Your task to perform on an android device: Go to wifi settings Image 0: 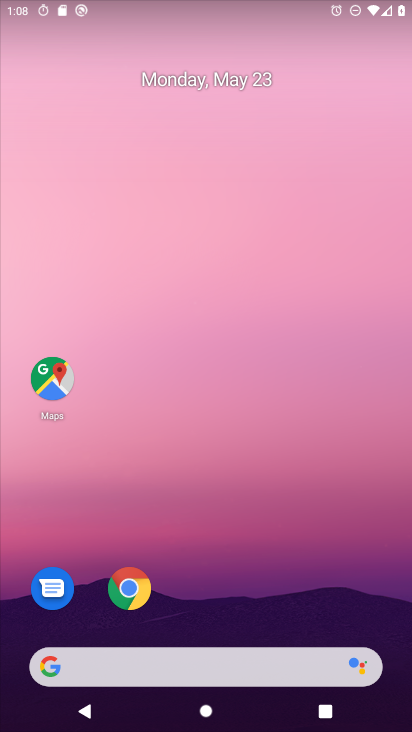
Step 0: drag from (263, 681) to (167, 168)
Your task to perform on an android device: Go to wifi settings Image 1: 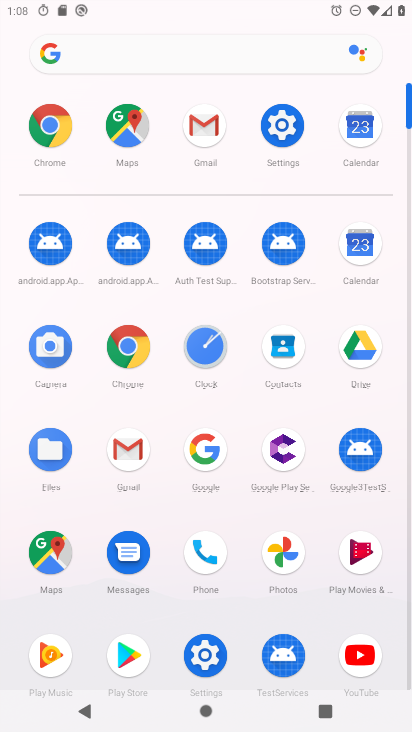
Step 1: click (257, 128)
Your task to perform on an android device: Go to wifi settings Image 2: 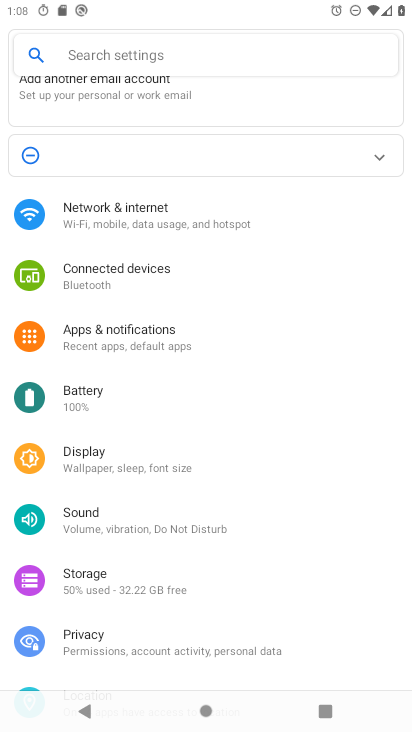
Step 2: click (172, 227)
Your task to perform on an android device: Go to wifi settings Image 3: 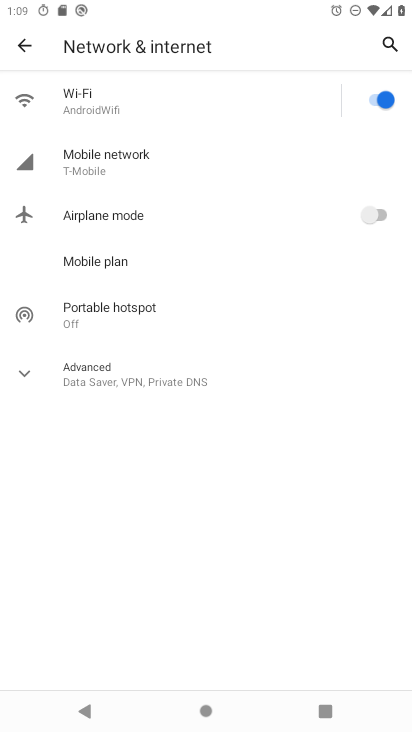
Step 3: click (186, 95)
Your task to perform on an android device: Go to wifi settings Image 4: 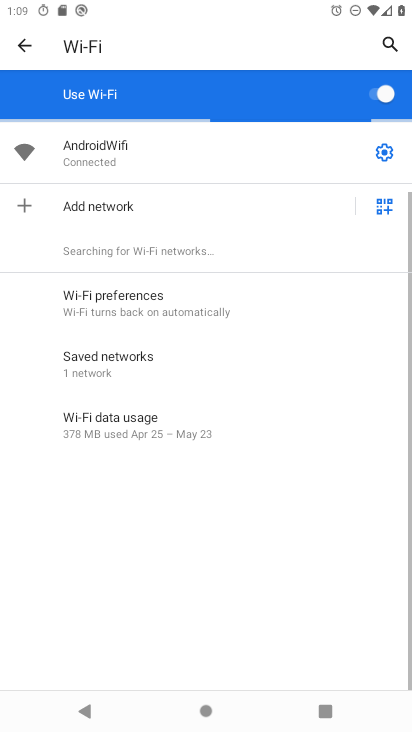
Step 4: task complete